Your task to perform on an android device: Go to Amazon Image 0: 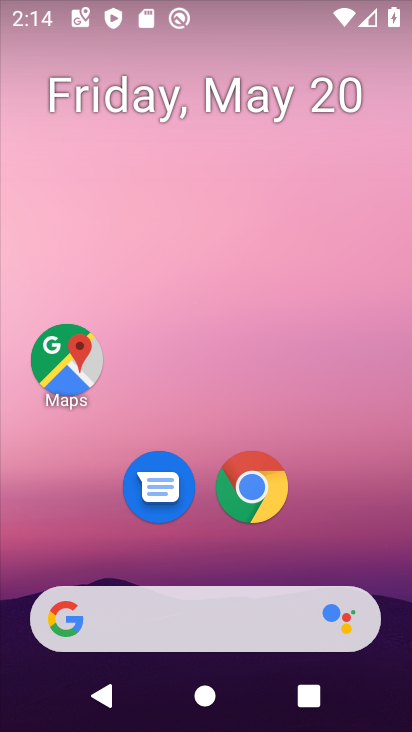
Step 0: click (271, 501)
Your task to perform on an android device: Go to Amazon Image 1: 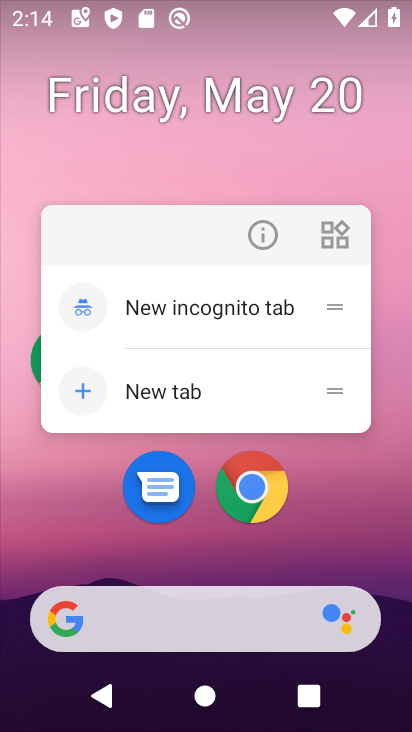
Step 1: click (271, 499)
Your task to perform on an android device: Go to Amazon Image 2: 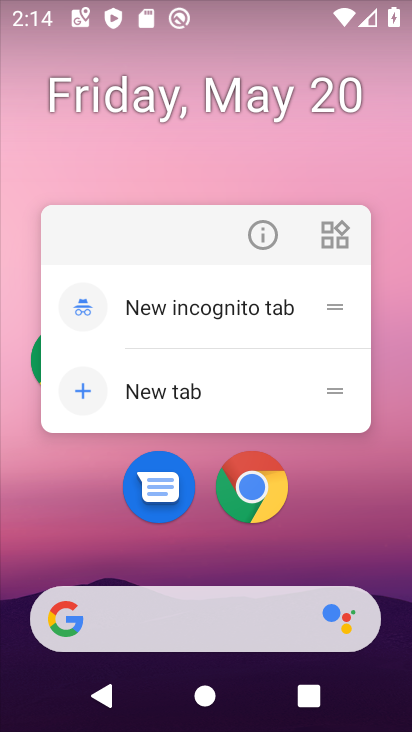
Step 2: click (271, 499)
Your task to perform on an android device: Go to Amazon Image 3: 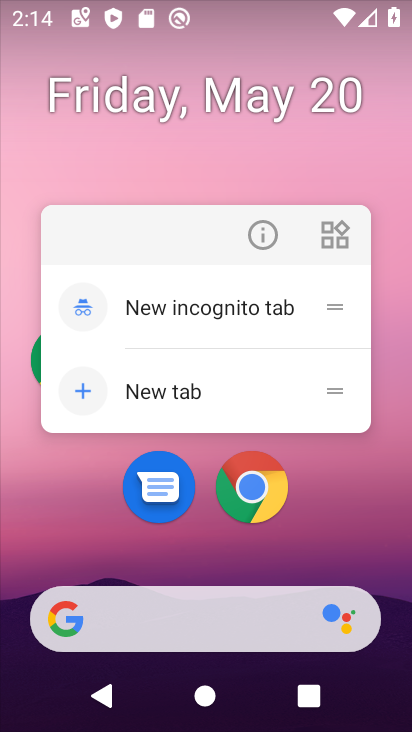
Step 3: click (267, 487)
Your task to perform on an android device: Go to Amazon Image 4: 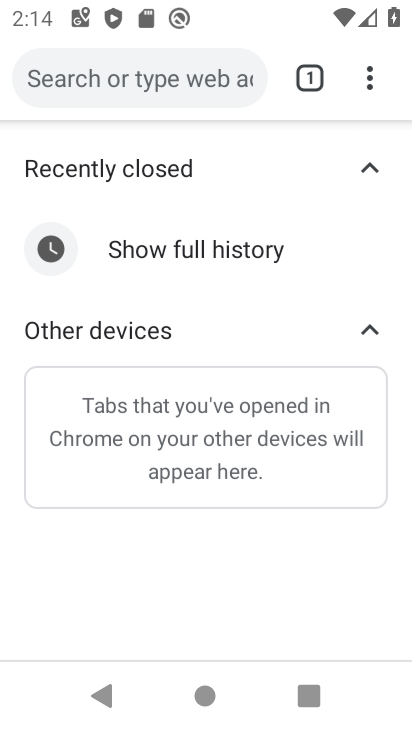
Step 4: click (212, 83)
Your task to perform on an android device: Go to Amazon Image 5: 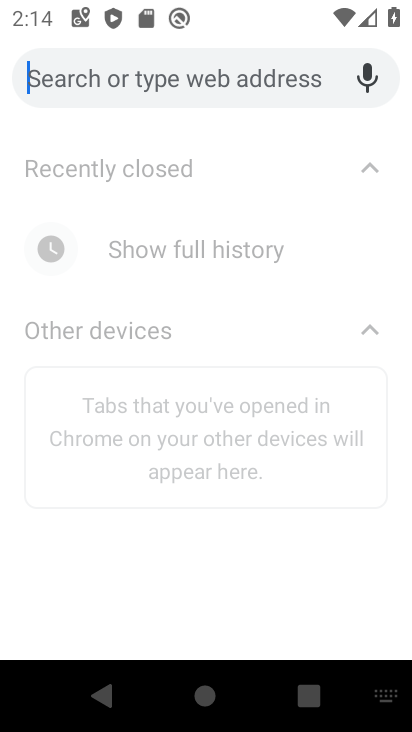
Step 5: type "amazon"
Your task to perform on an android device: Go to Amazon Image 6: 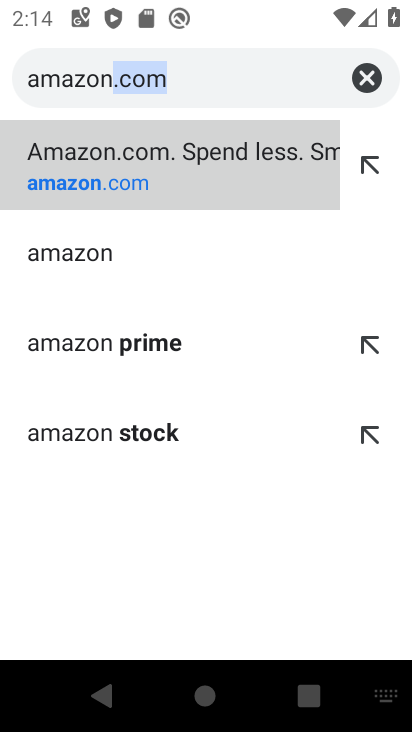
Step 6: click (88, 170)
Your task to perform on an android device: Go to Amazon Image 7: 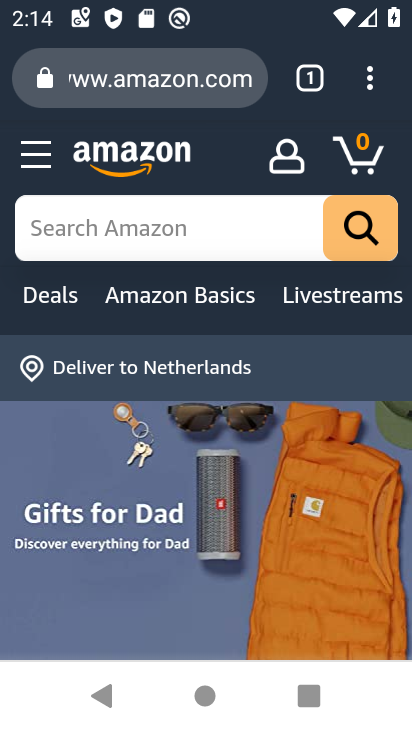
Step 7: task complete